Your task to perform on an android device: What are the best selling refrigerators at Home Depot? Image 0: 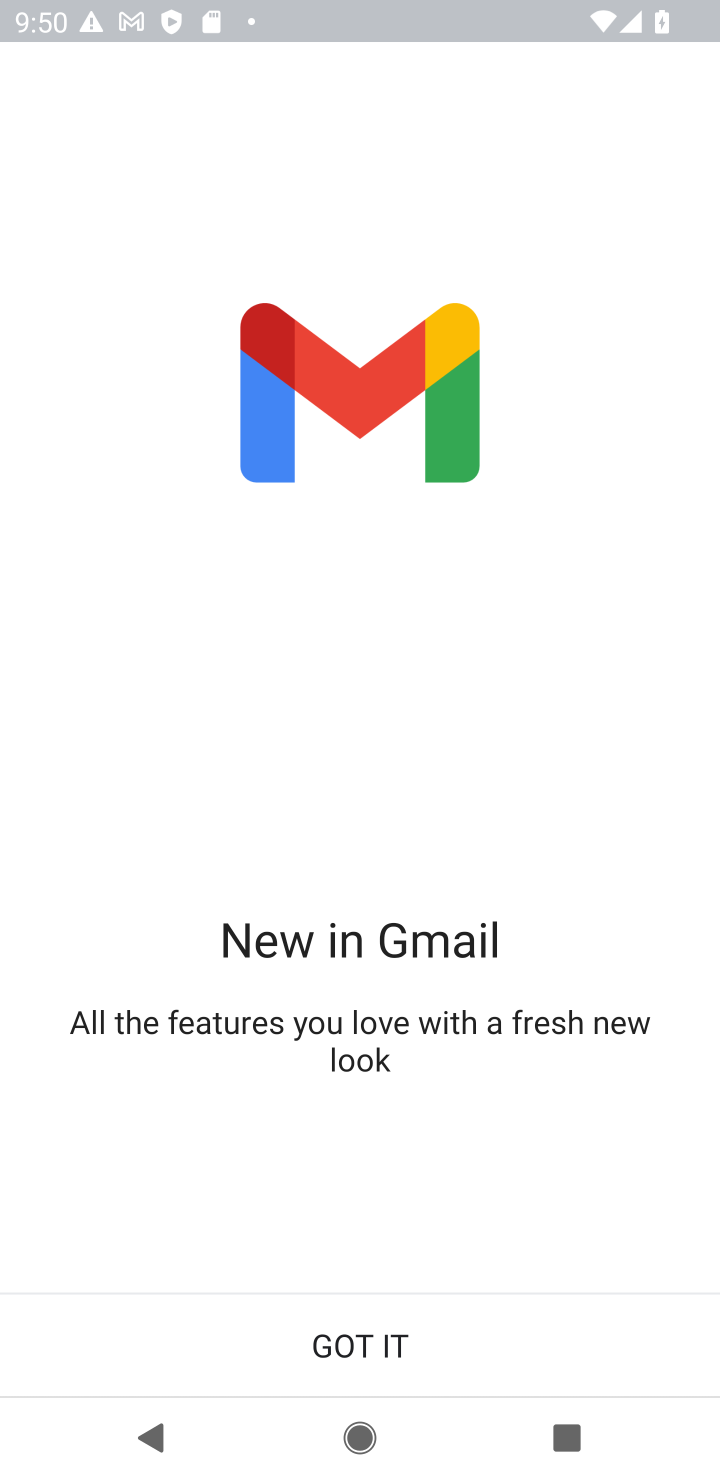
Step 0: press home button
Your task to perform on an android device: What are the best selling refrigerators at Home Depot? Image 1: 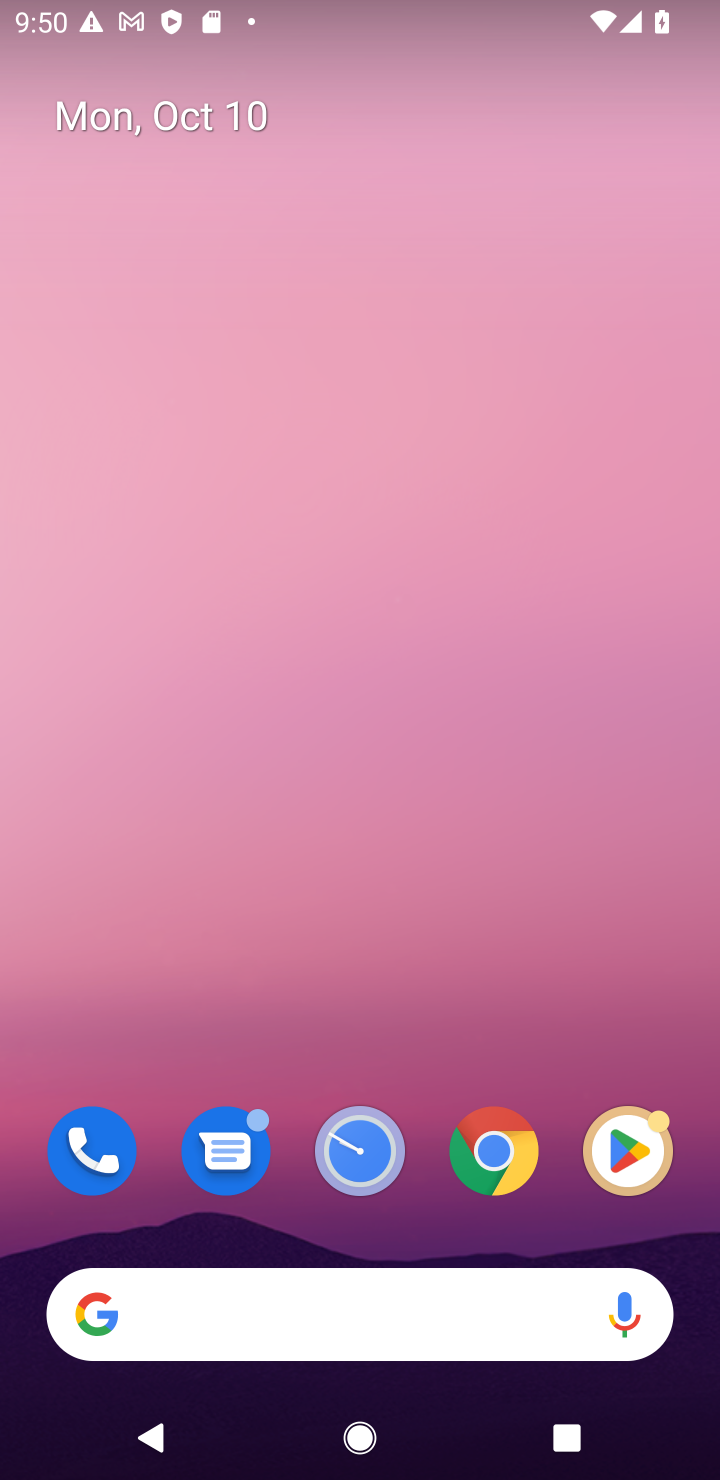
Step 1: click (479, 1158)
Your task to perform on an android device: What are the best selling refrigerators at Home Depot? Image 2: 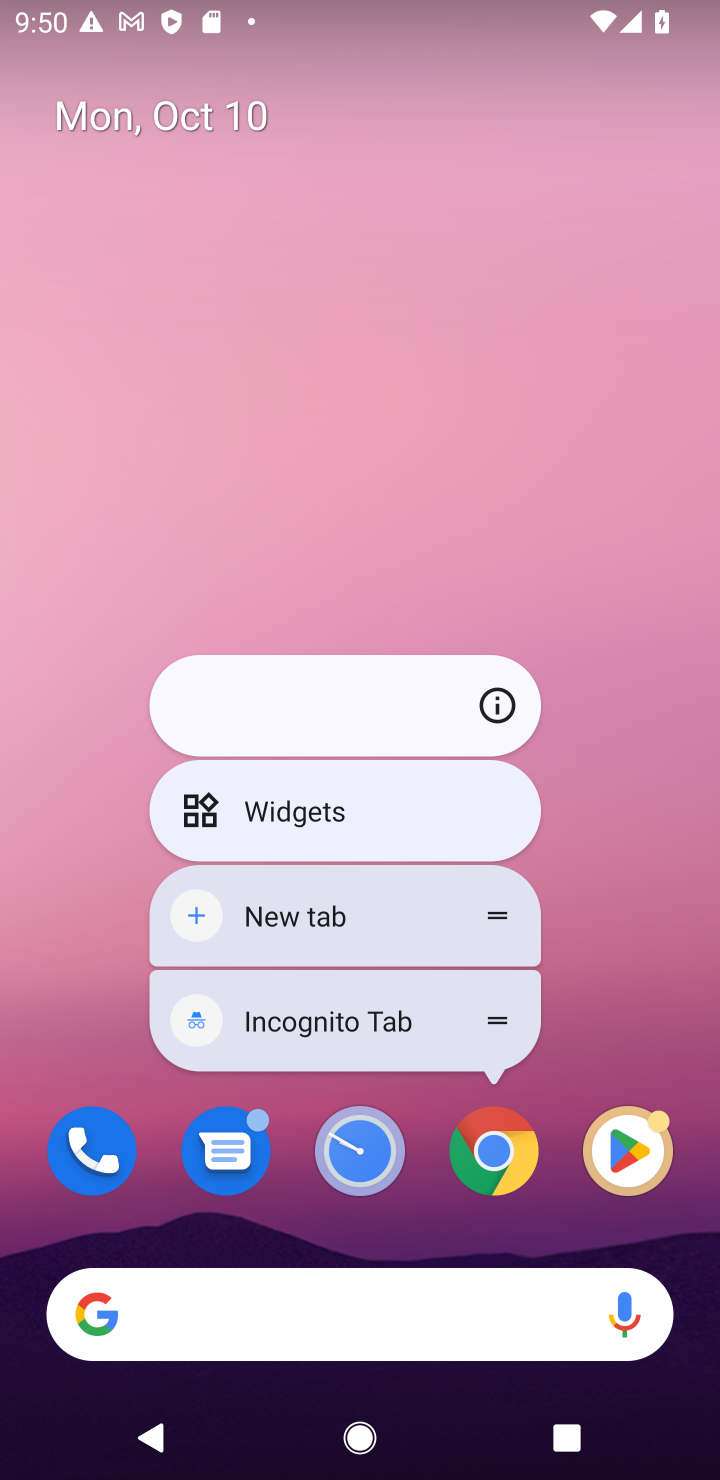
Step 2: click (479, 1158)
Your task to perform on an android device: What are the best selling refrigerators at Home Depot? Image 3: 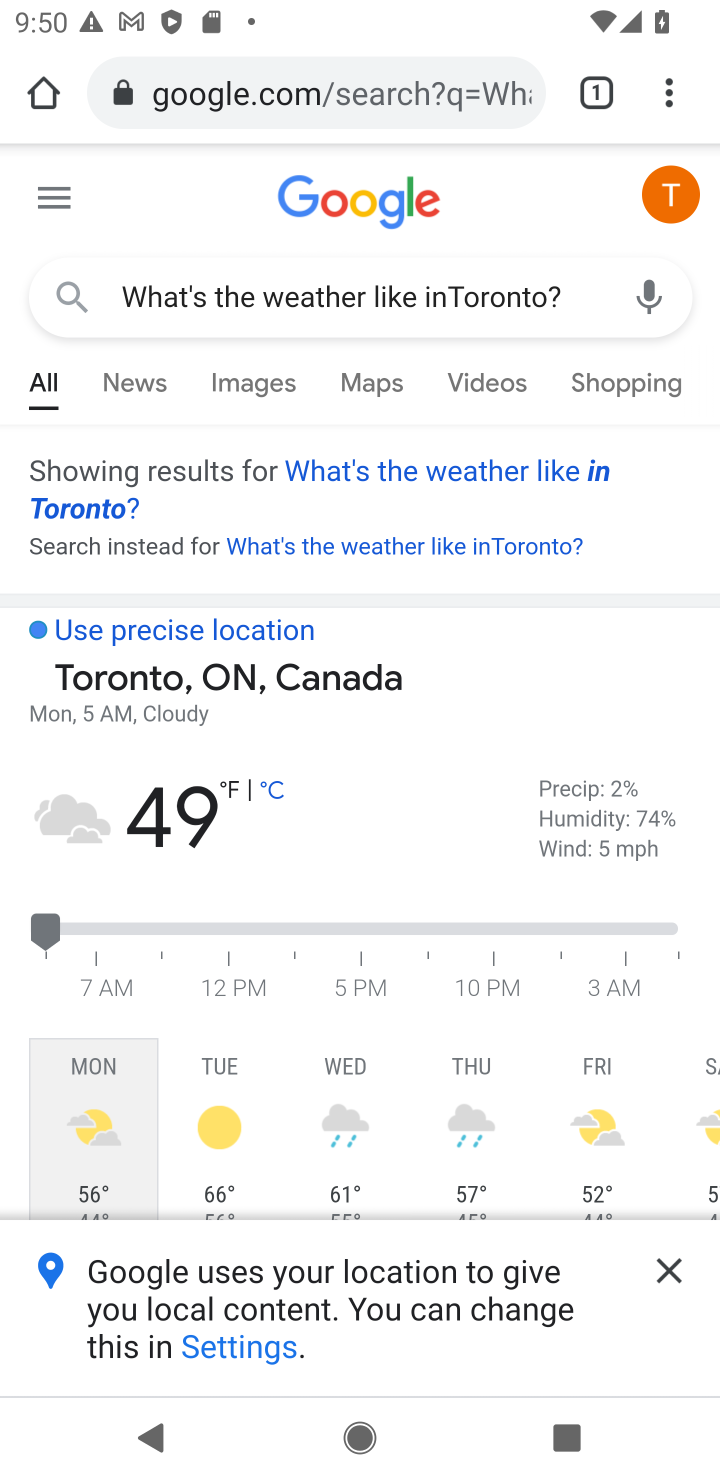
Step 3: click (376, 82)
Your task to perform on an android device: What are the best selling refrigerators at Home Depot? Image 4: 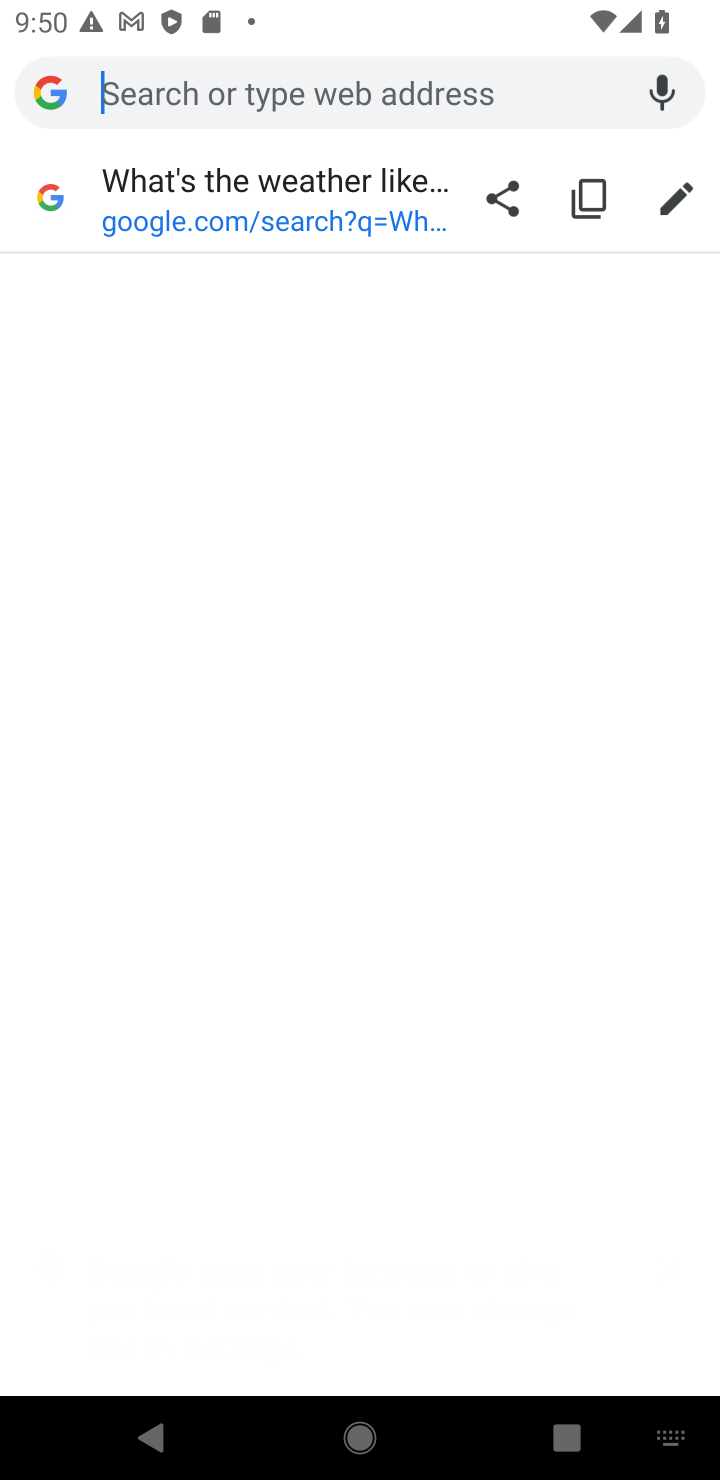
Step 4: type "What are the best selling refrigerators at Home Depot?"
Your task to perform on an android device: What are the best selling refrigerators at Home Depot? Image 5: 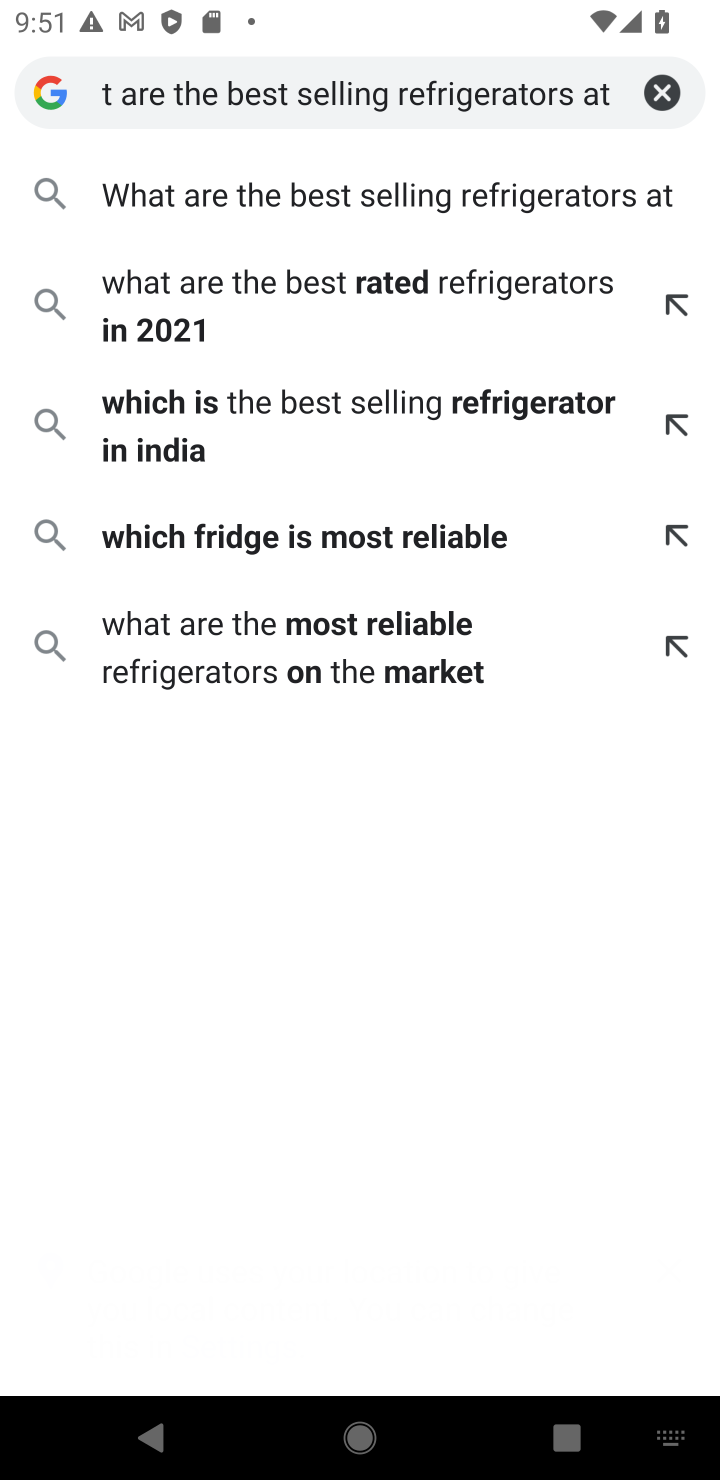
Step 5: click (331, 194)
Your task to perform on an android device: What are the best selling refrigerators at Home Depot? Image 6: 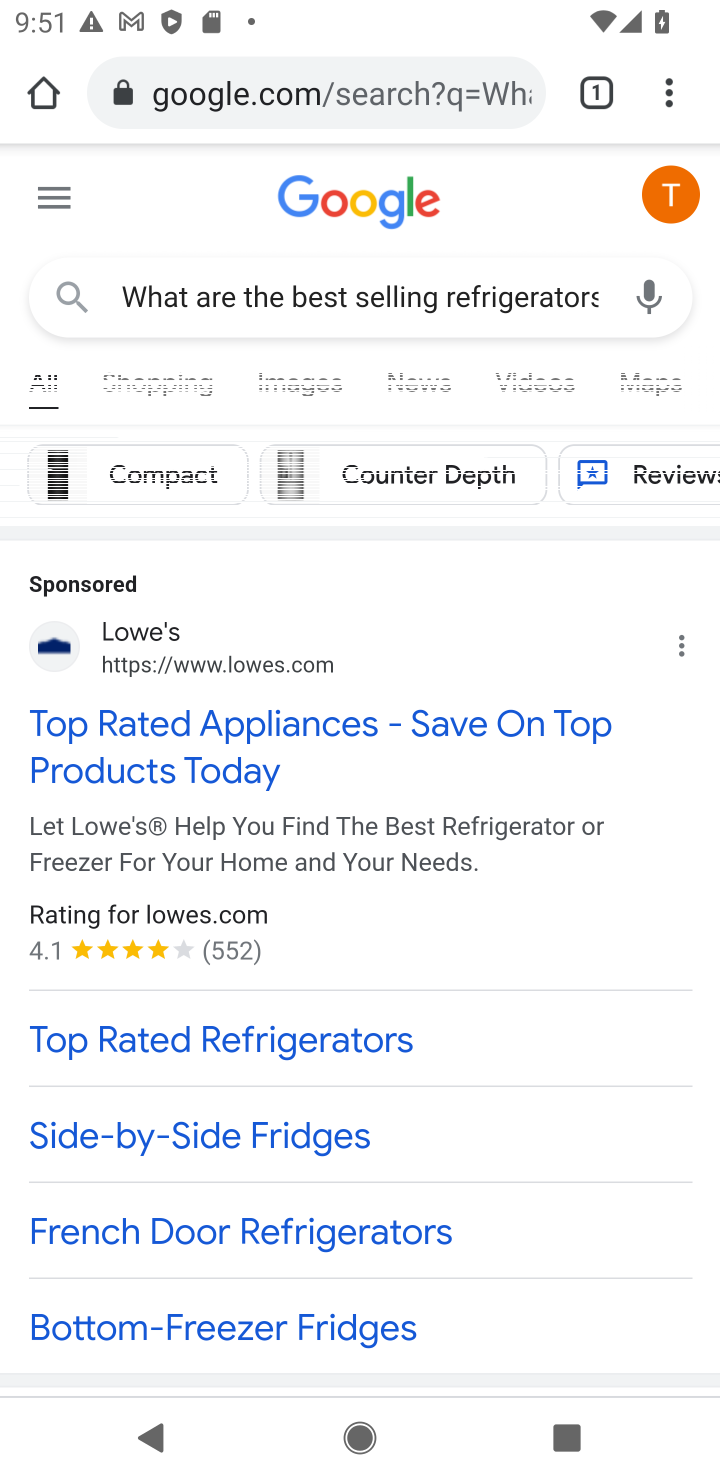
Step 6: drag from (319, 996) to (404, 387)
Your task to perform on an android device: What are the best selling refrigerators at Home Depot? Image 7: 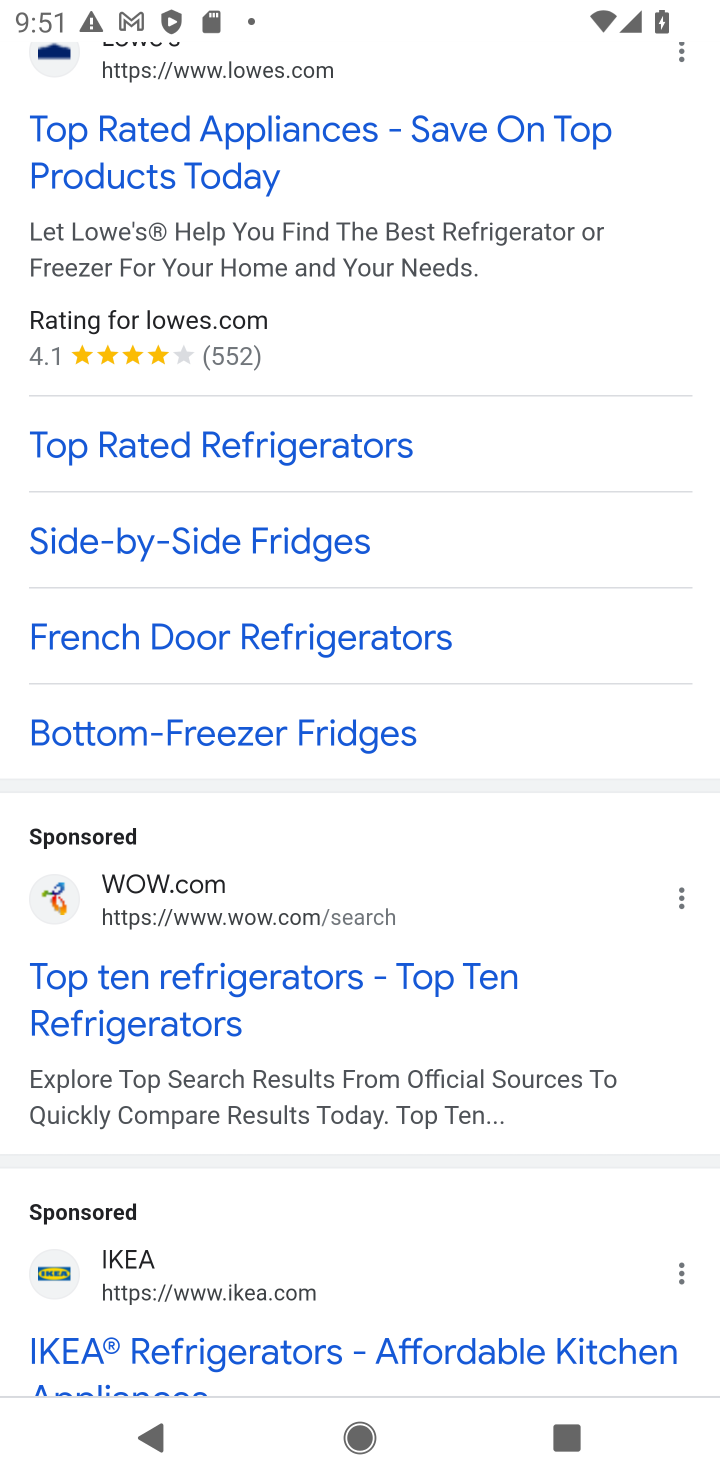
Step 7: drag from (269, 1324) to (459, 215)
Your task to perform on an android device: What are the best selling refrigerators at Home Depot? Image 8: 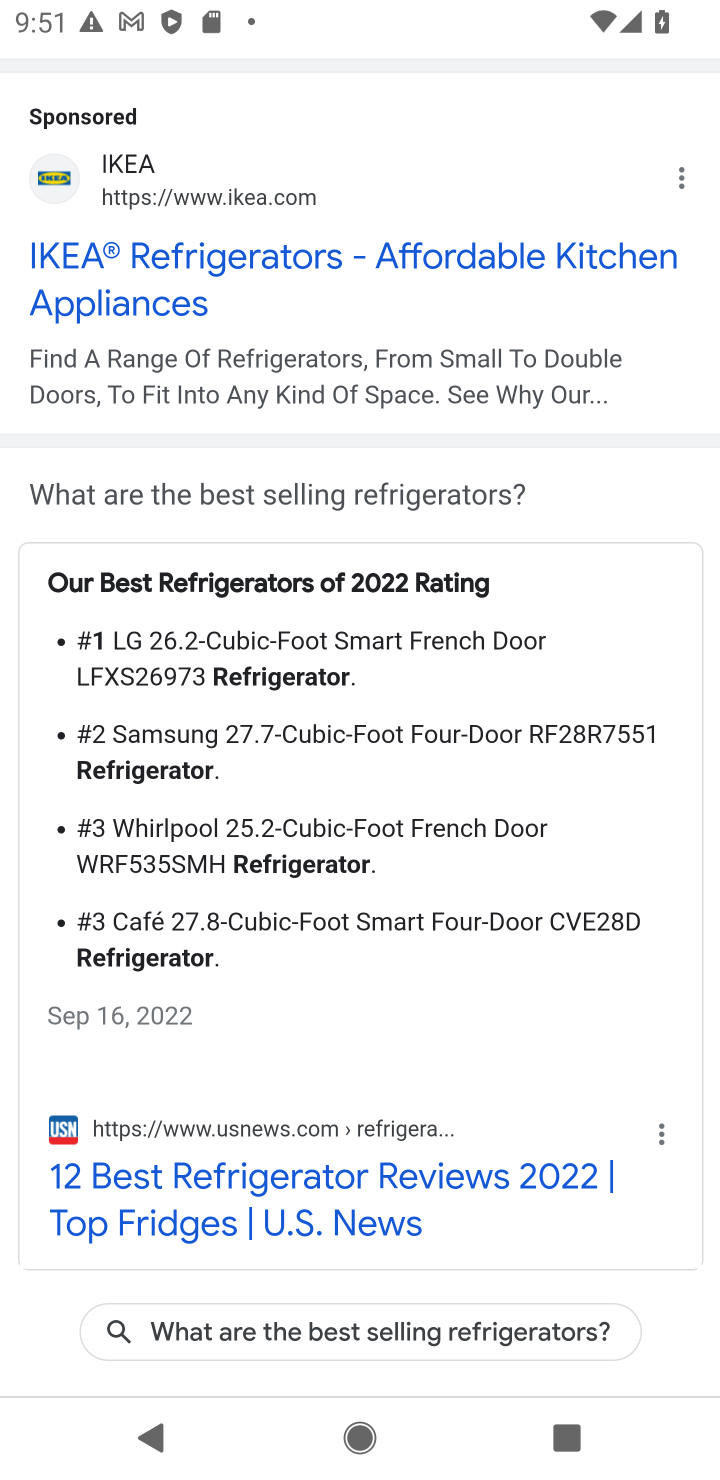
Step 8: drag from (28, 1358) to (168, 469)
Your task to perform on an android device: What are the best selling refrigerators at Home Depot? Image 9: 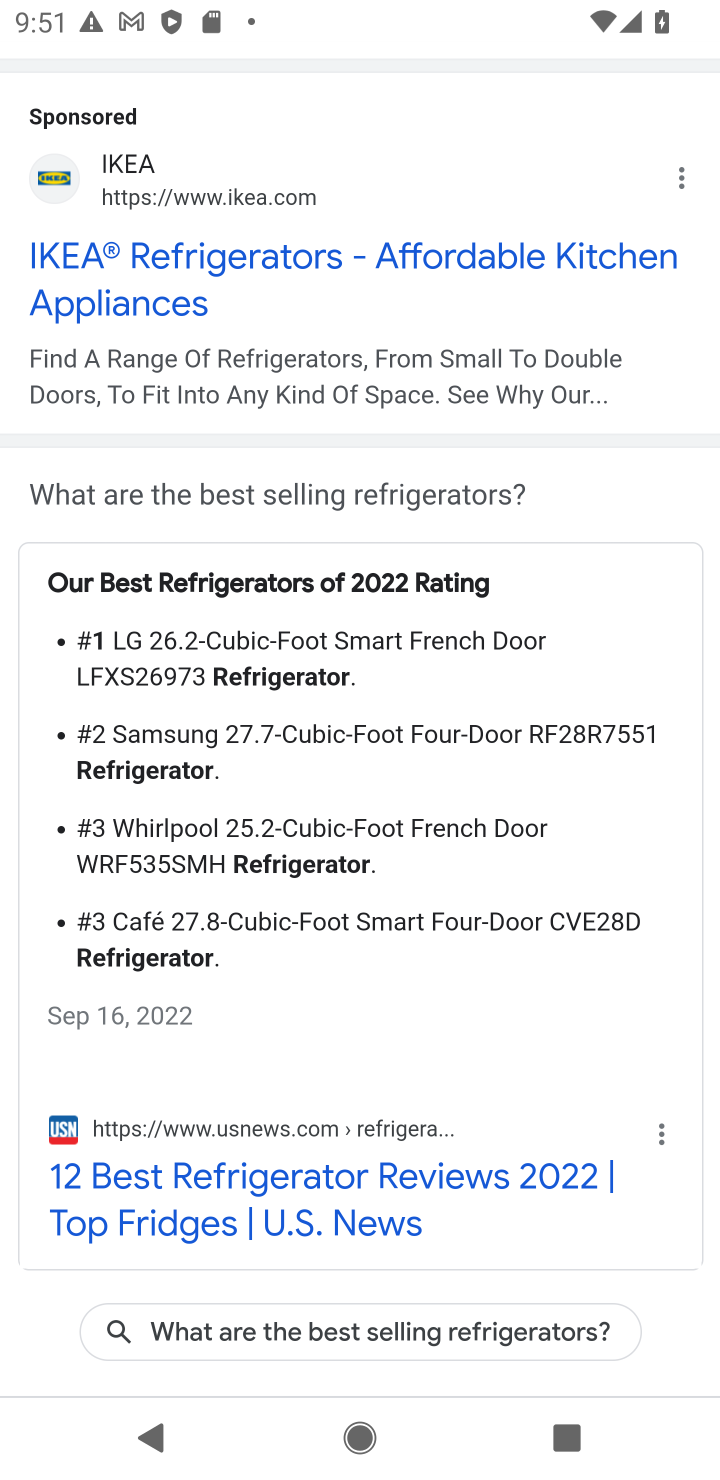
Step 9: drag from (264, 1265) to (352, 547)
Your task to perform on an android device: What are the best selling refrigerators at Home Depot? Image 10: 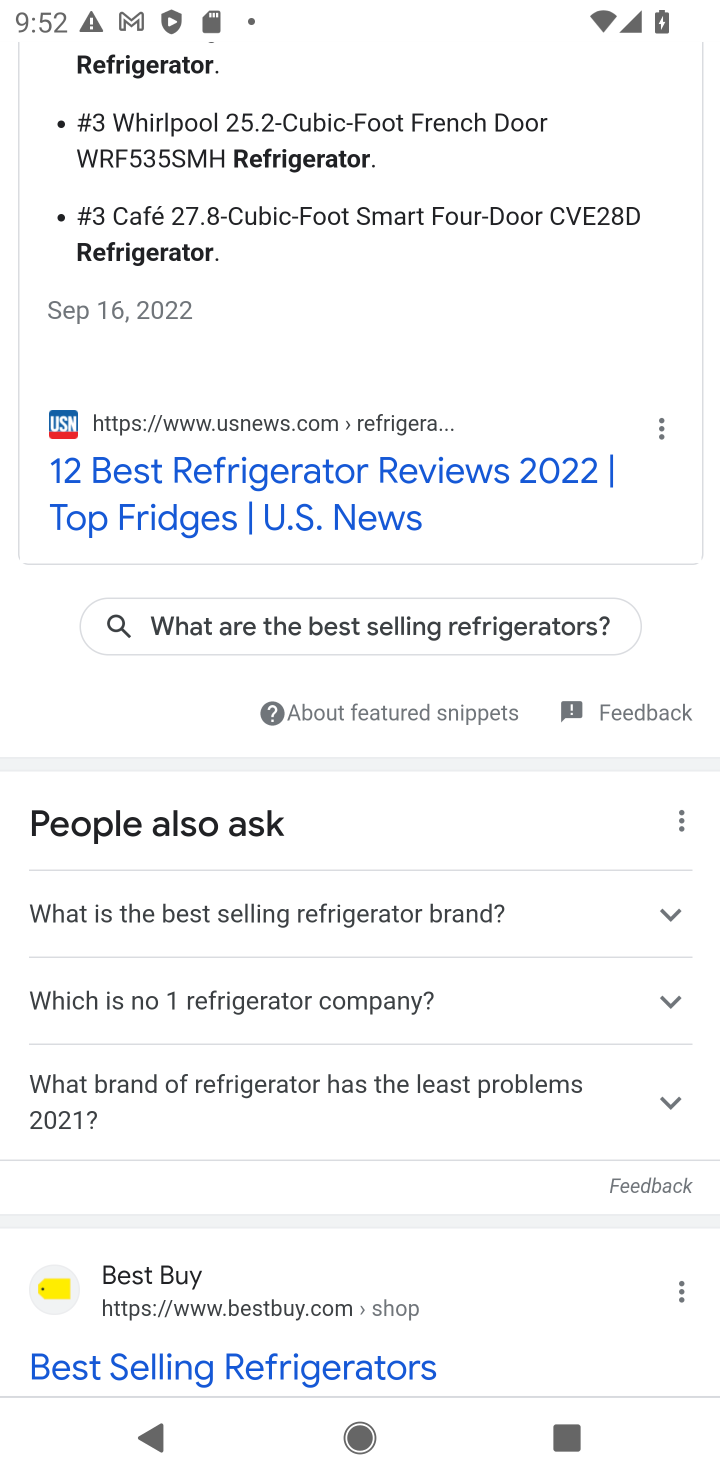
Step 10: drag from (74, 1211) to (305, 362)
Your task to perform on an android device: What are the best selling refrigerators at Home Depot? Image 11: 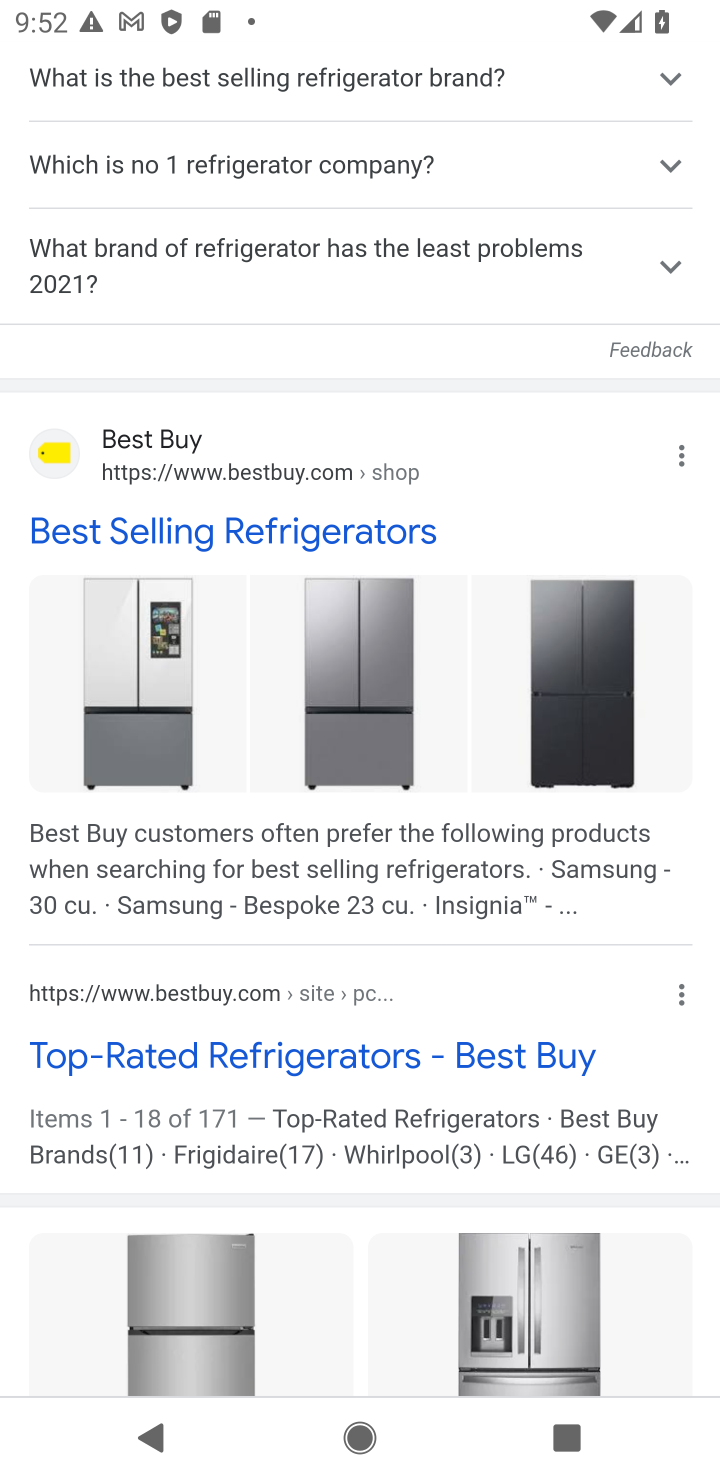
Step 11: drag from (312, 357) to (313, 989)
Your task to perform on an android device: What are the best selling refrigerators at Home Depot? Image 12: 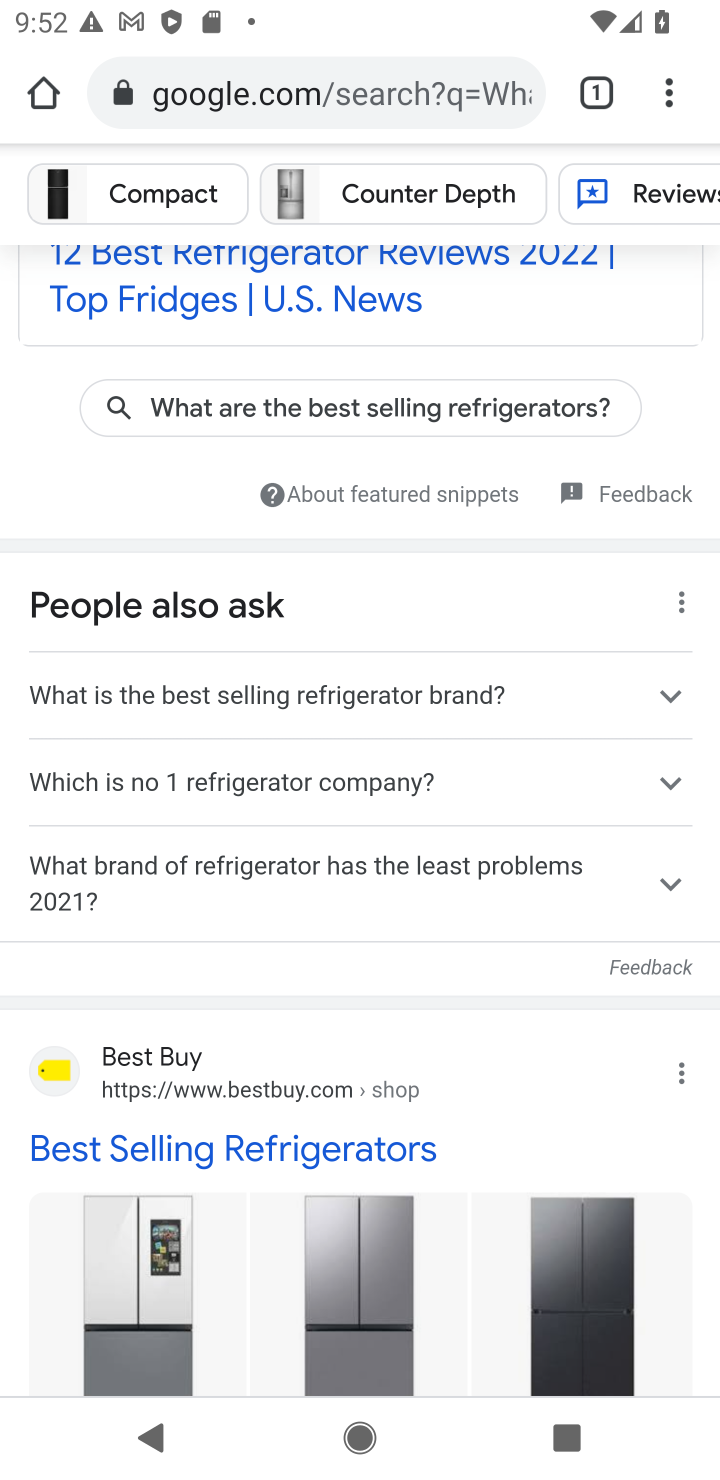
Step 12: drag from (395, 220) to (462, 870)
Your task to perform on an android device: What are the best selling refrigerators at Home Depot? Image 13: 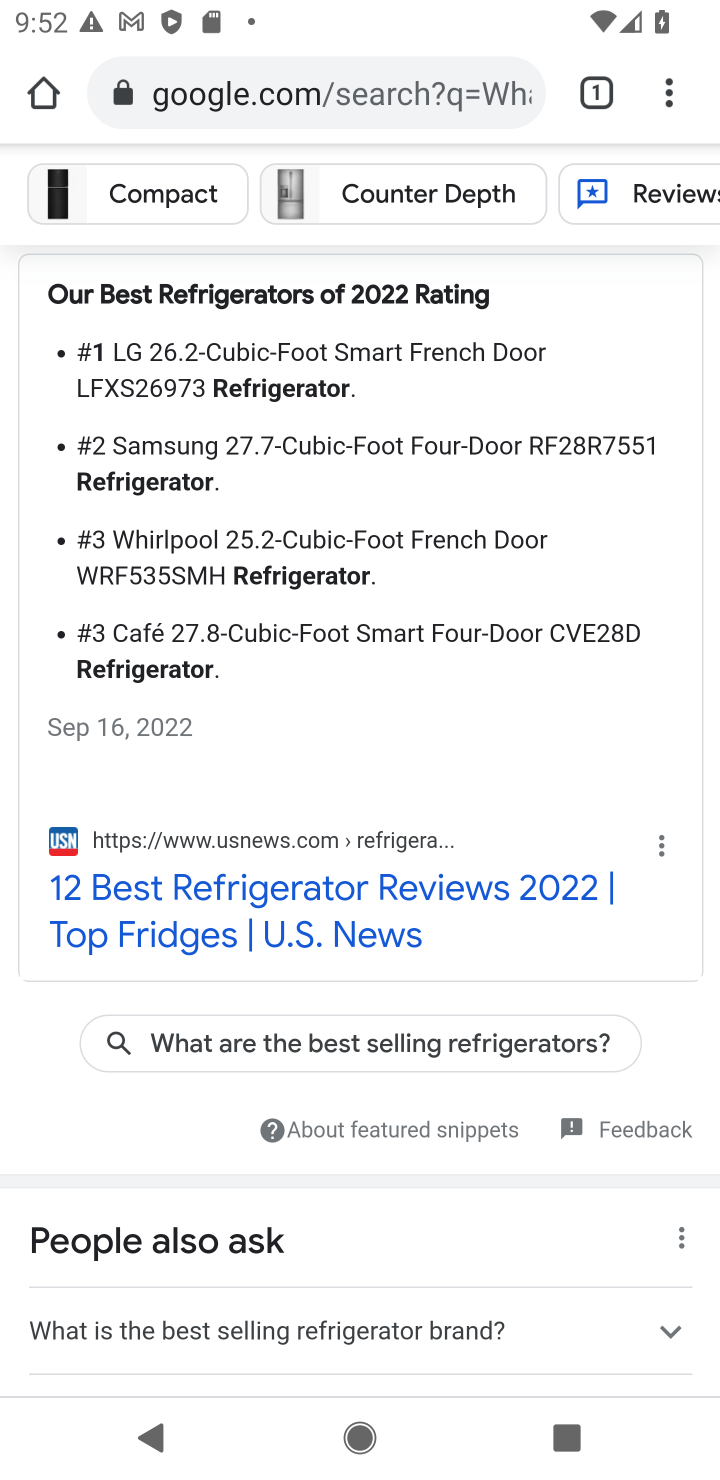
Step 13: drag from (395, 428) to (394, 1024)
Your task to perform on an android device: What are the best selling refrigerators at Home Depot? Image 14: 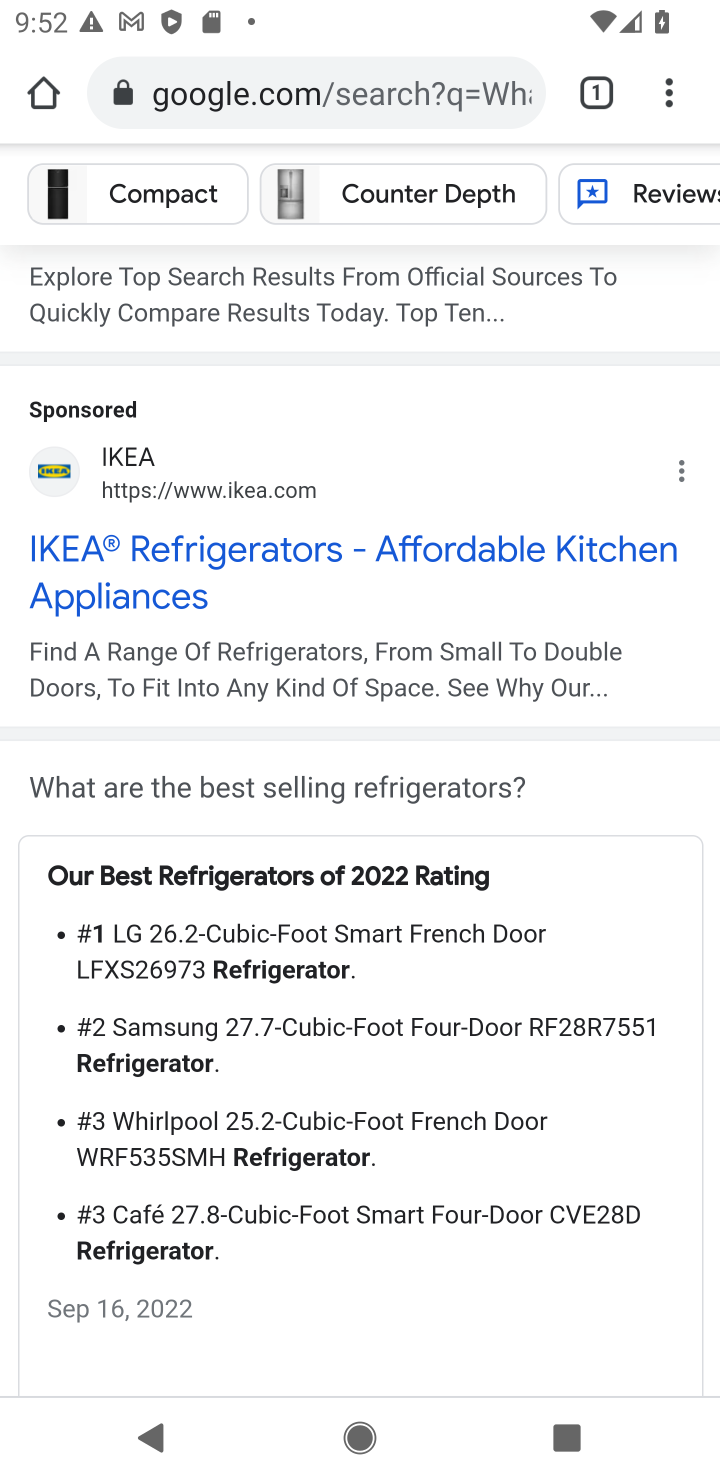
Step 14: drag from (197, 1219) to (271, 374)
Your task to perform on an android device: What are the best selling refrigerators at Home Depot? Image 15: 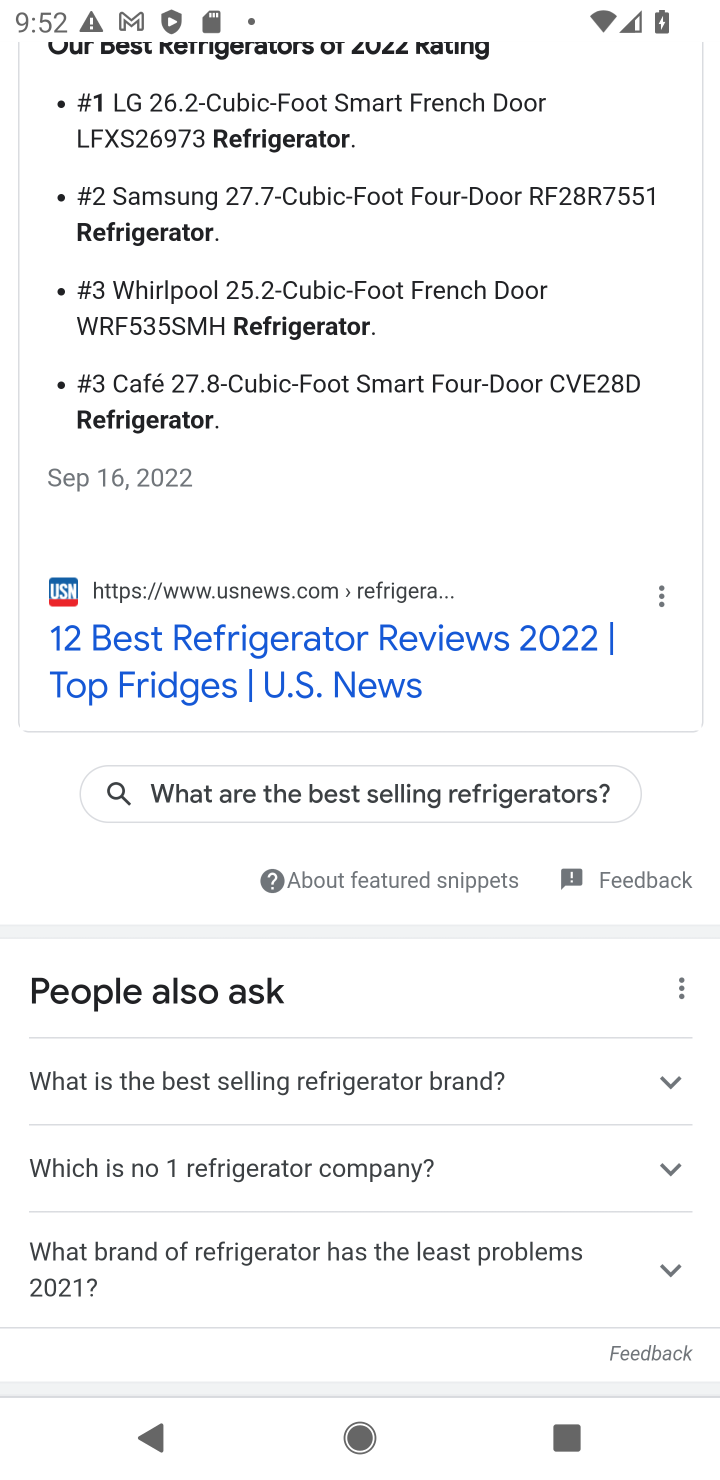
Step 15: drag from (292, 1255) to (284, 429)
Your task to perform on an android device: What are the best selling refrigerators at Home Depot? Image 16: 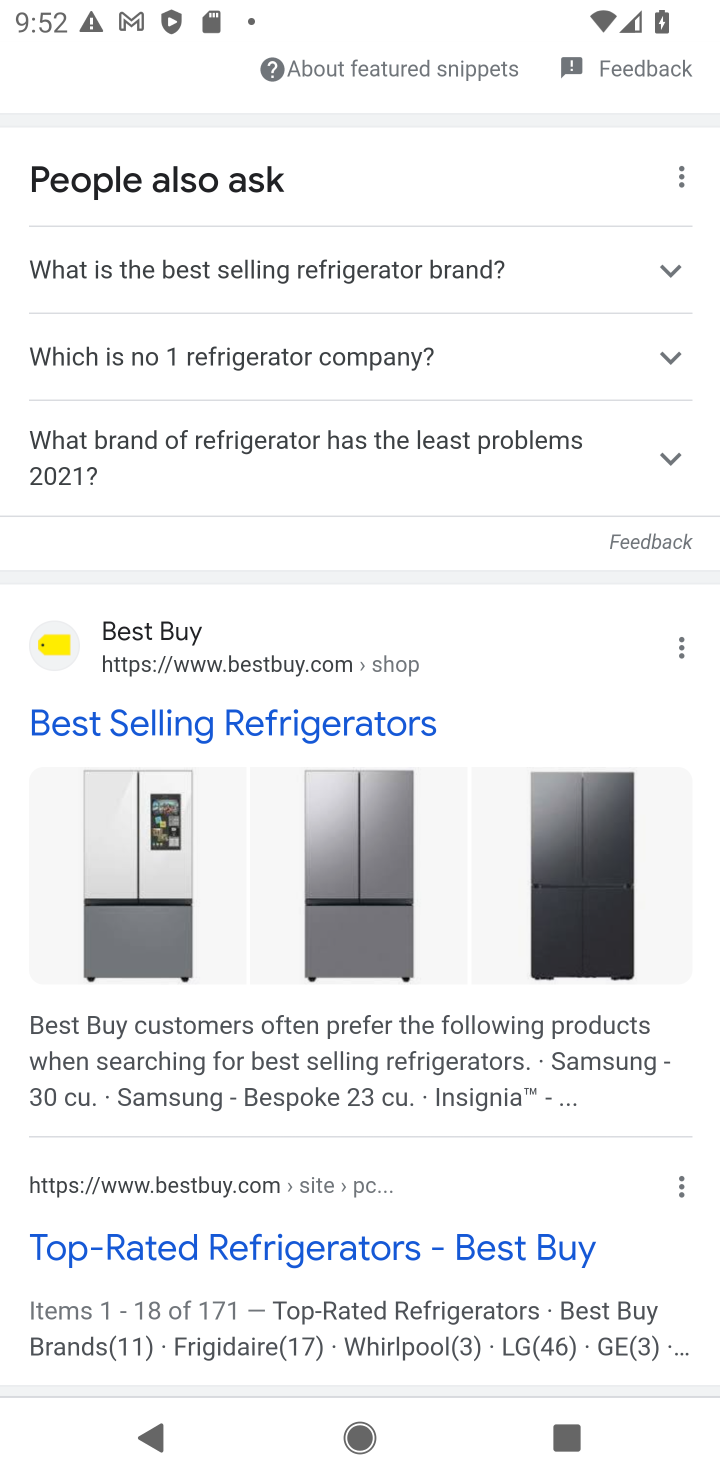
Step 16: drag from (228, 1221) to (431, 124)
Your task to perform on an android device: What are the best selling refrigerators at Home Depot? Image 17: 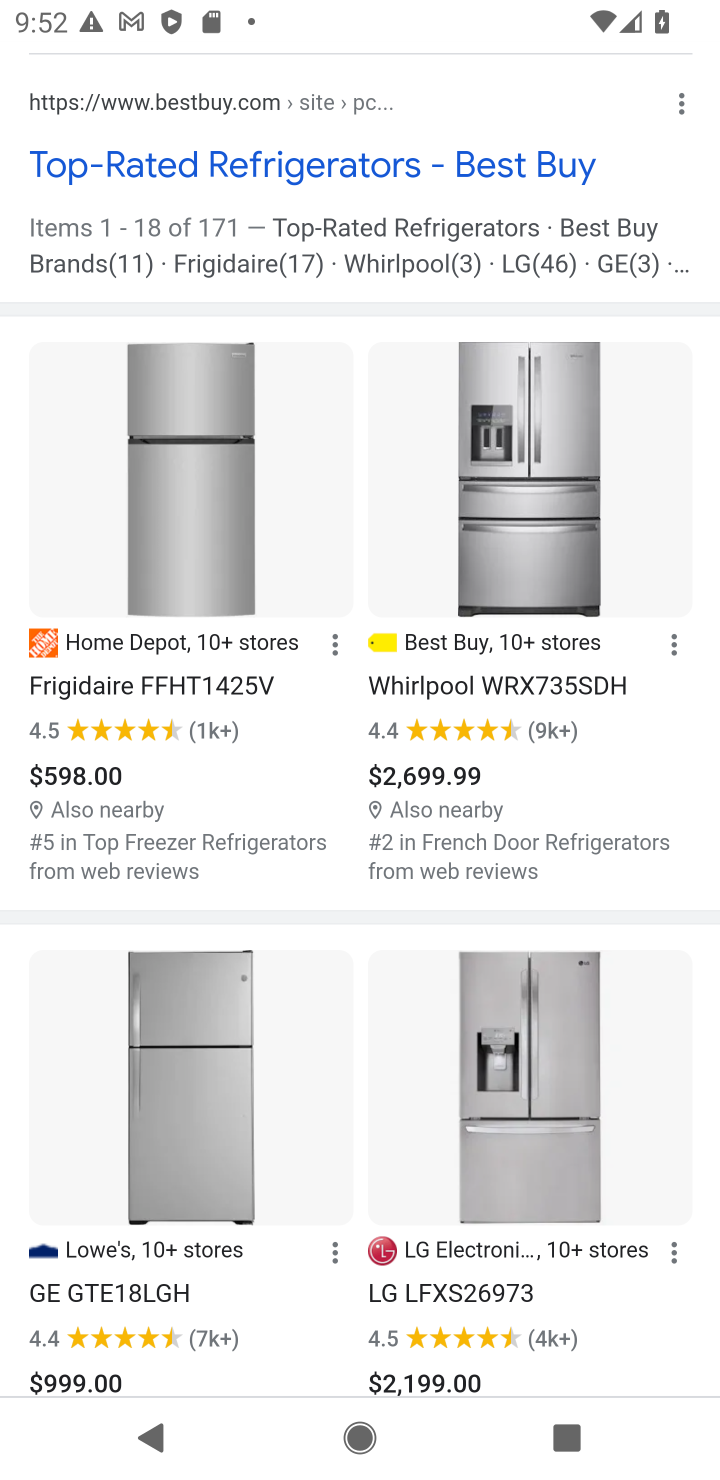
Step 17: click (170, 662)
Your task to perform on an android device: What are the best selling refrigerators at Home Depot? Image 18: 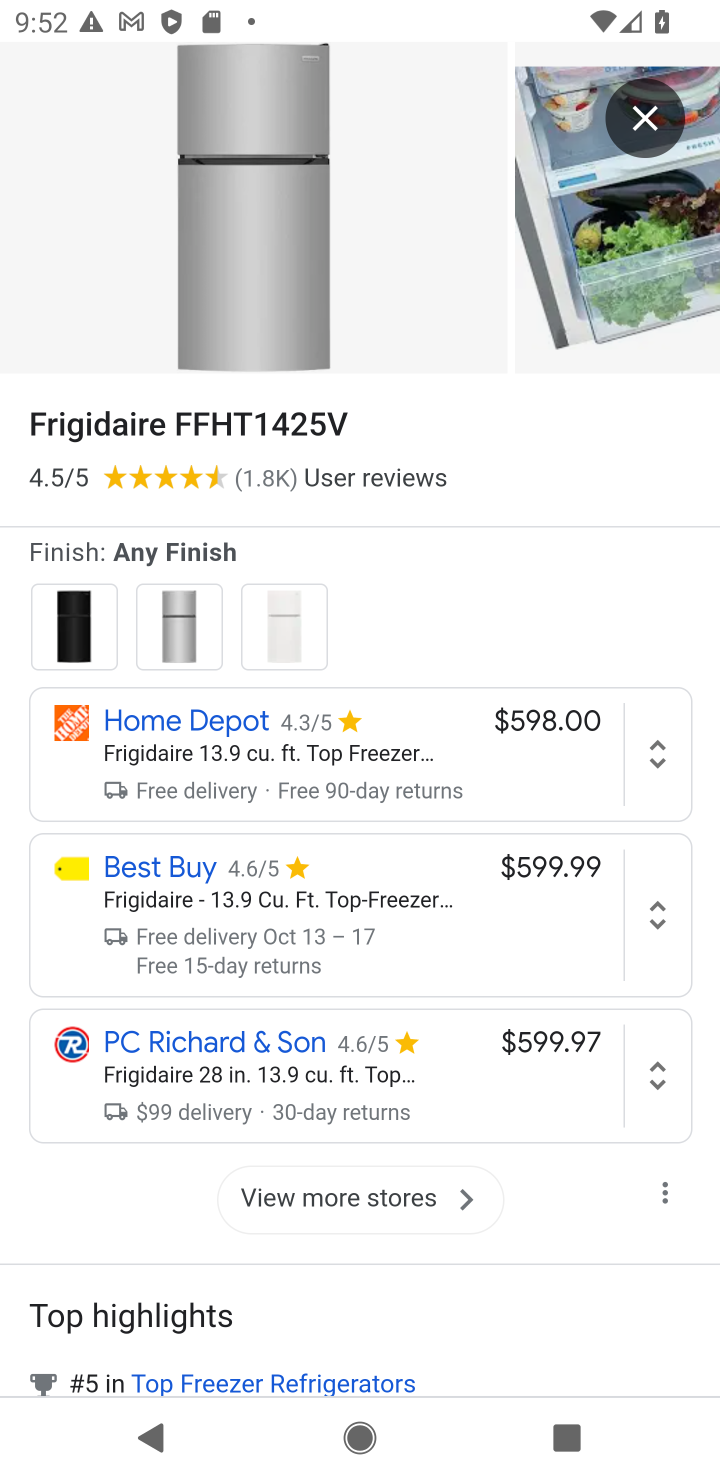
Step 18: task complete